Your task to perform on an android device: Open sound settings Image 0: 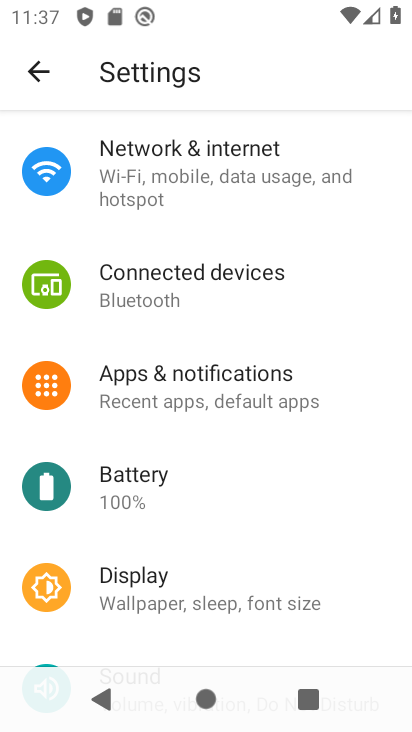
Step 0: drag from (265, 520) to (331, 171)
Your task to perform on an android device: Open sound settings Image 1: 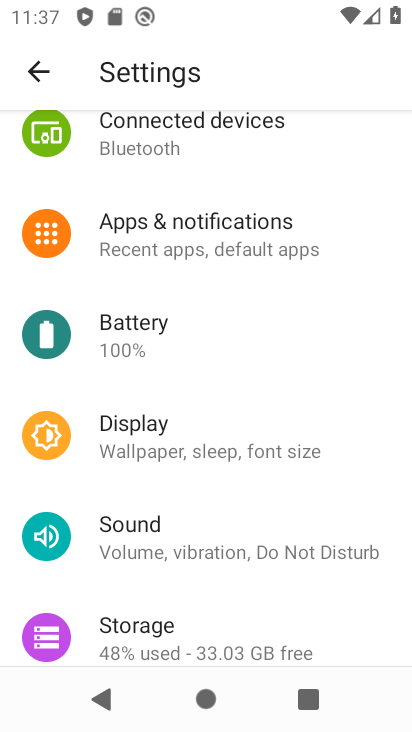
Step 1: click (121, 522)
Your task to perform on an android device: Open sound settings Image 2: 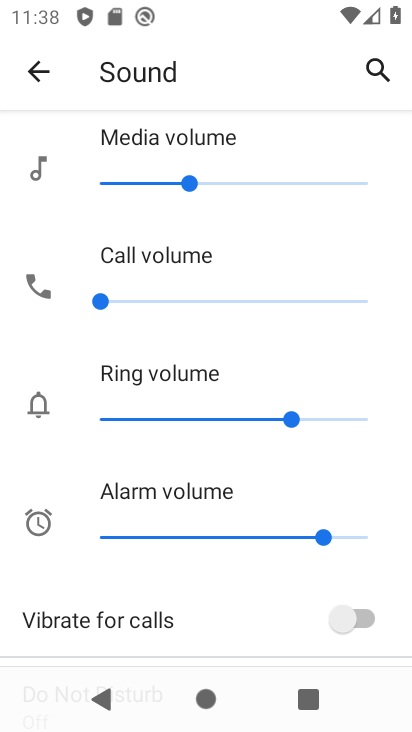
Step 2: task complete